Your task to perform on an android device: Open Google Chrome Image 0: 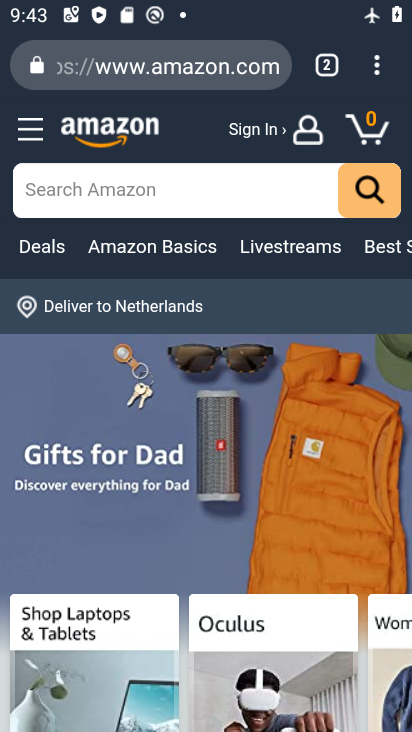
Step 0: press home button
Your task to perform on an android device: Open Google Chrome Image 1: 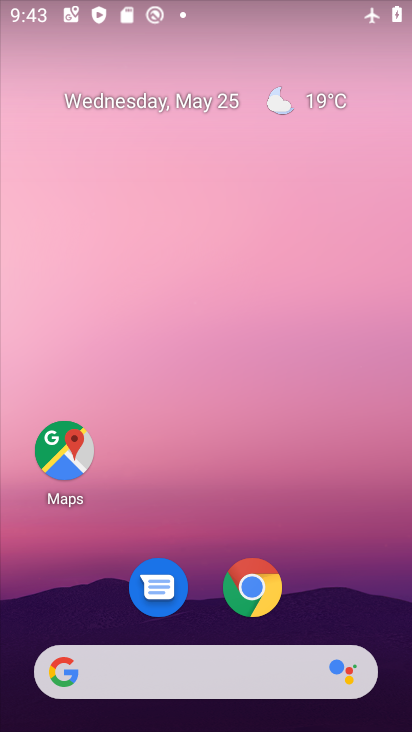
Step 1: click (253, 590)
Your task to perform on an android device: Open Google Chrome Image 2: 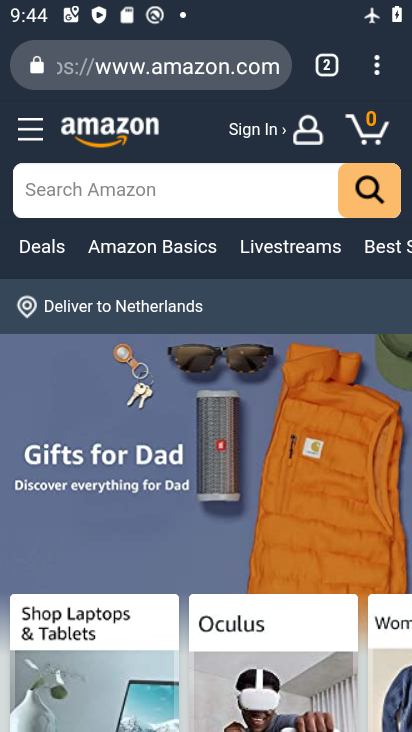
Step 2: task complete